Your task to perform on an android device: turn off notifications settings in the gmail app Image 0: 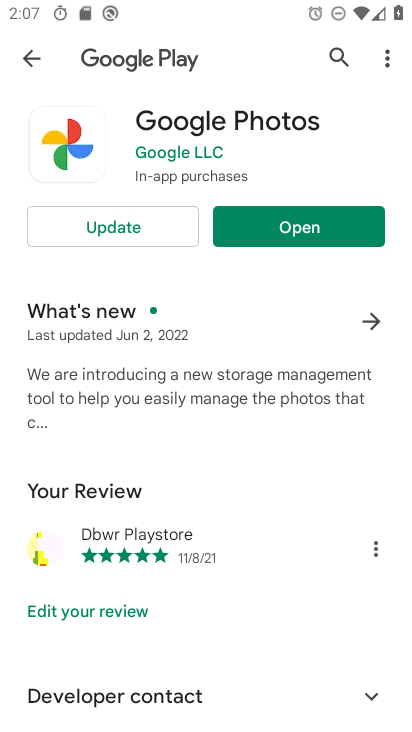
Step 0: press home button
Your task to perform on an android device: turn off notifications settings in the gmail app Image 1: 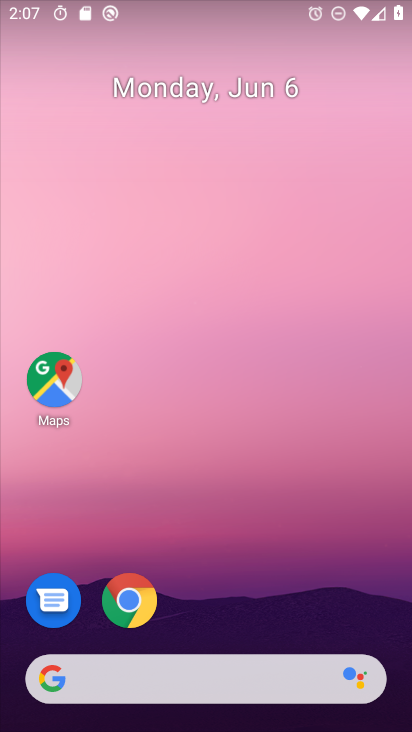
Step 1: drag from (194, 620) to (167, 252)
Your task to perform on an android device: turn off notifications settings in the gmail app Image 2: 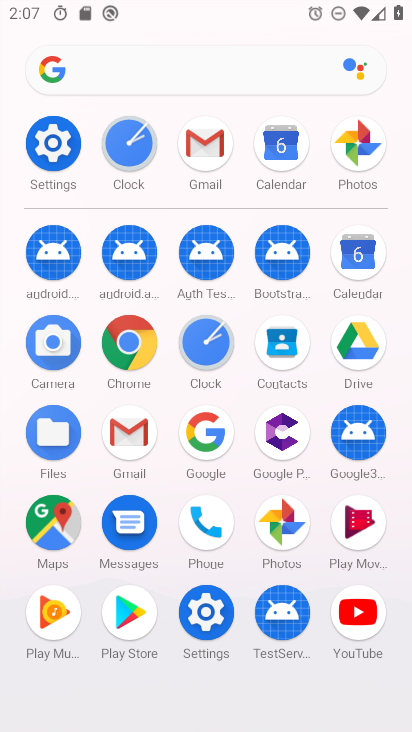
Step 2: click (206, 158)
Your task to perform on an android device: turn off notifications settings in the gmail app Image 3: 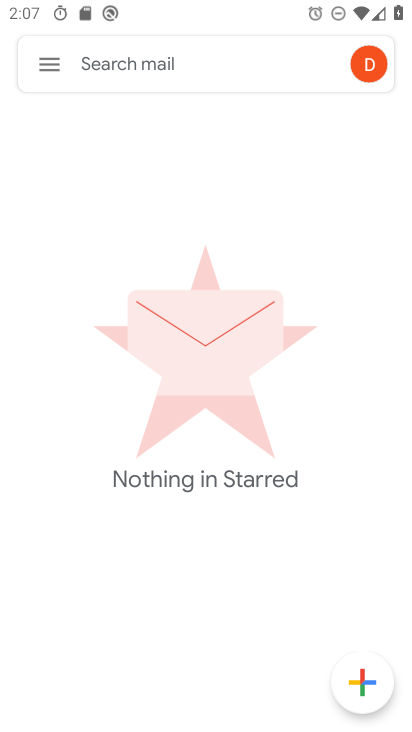
Step 3: click (57, 63)
Your task to perform on an android device: turn off notifications settings in the gmail app Image 4: 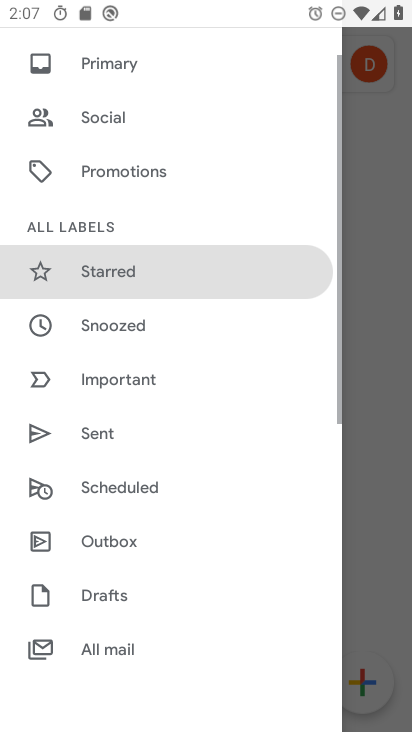
Step 4: drag from (183, 582) to (178, 278)
Your task to perform on an android device: turn off notifications settings in the gmail app Image 5: 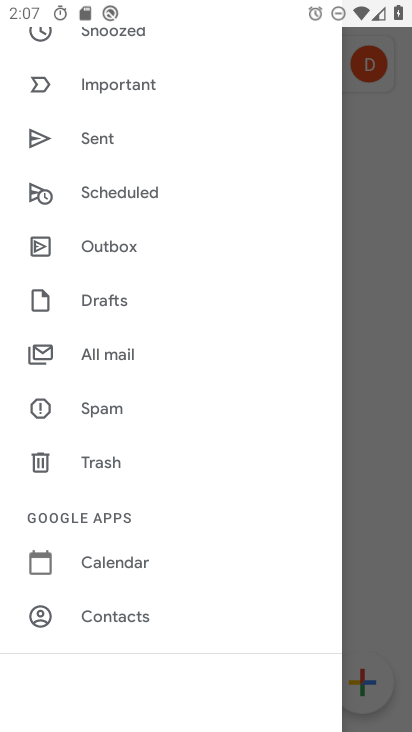
Step 5: drag from (139, 626) to (152, 305)
Your task to perform on an android device: turn off notifications settings in the gmail app Image 6: 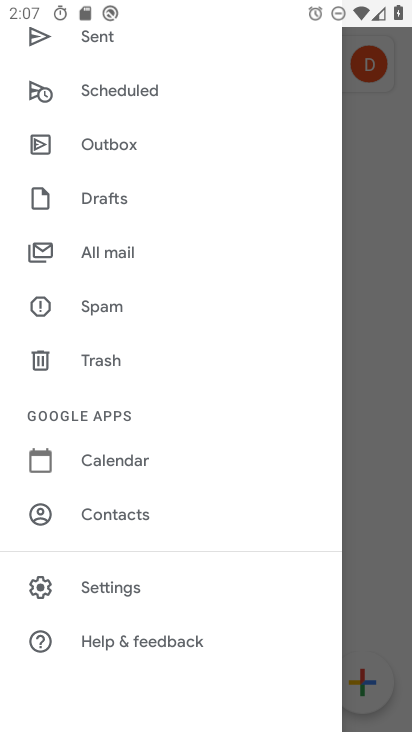
Step 6: click (130, 589)
Your task to perform on an android device: turn off notifications settings in the gmail app Image 7: 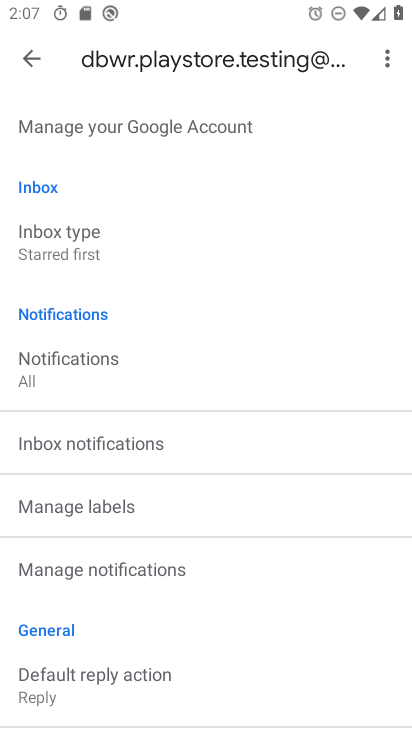
Step 7: drag from (160, 598) to (172, 359)
Your task to perform on an android device: turn off notifications settings in the gmail app Image 8: 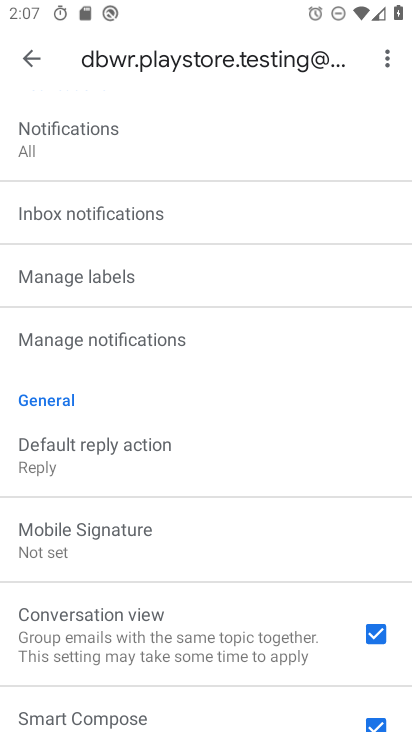
Step 8: drag from (182, 569) to (187, 490)
Your task to perform on an android device: turn off notifications settings in the gmail app Image 9: 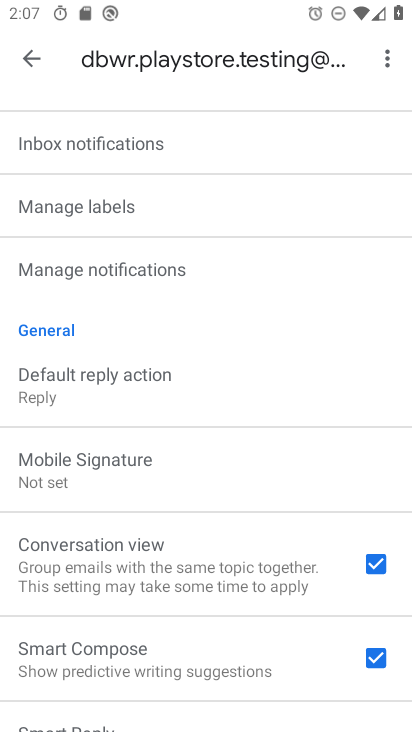
Step 9: click (166, 255)
Your task to perform on an android device: turn off notifications settings in the gmail app Image 10: 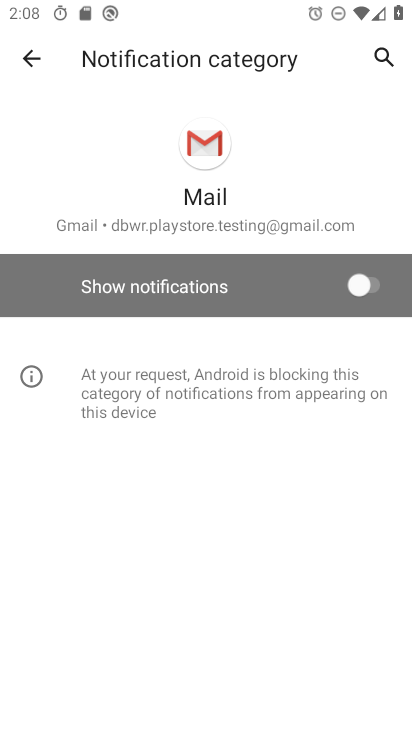
Step 10: task complete